Your task to perform on an android device: stop showing notifications on the lock screen Image 0: 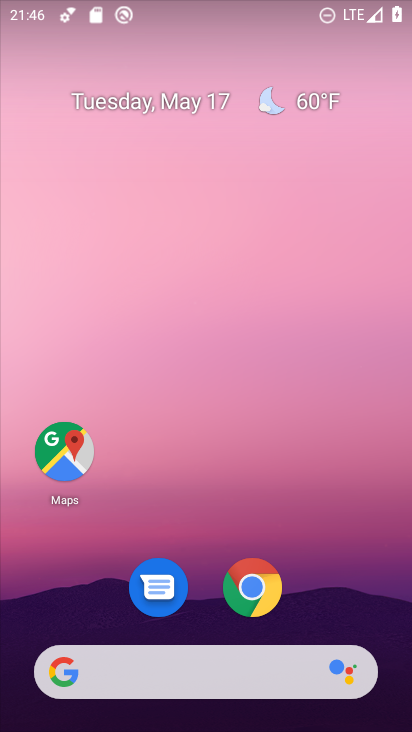
Step 0: drag from (218, 515) to (233, 150)
Your task to perform on an android device: stop showing notifications on the lock screen Image 1: 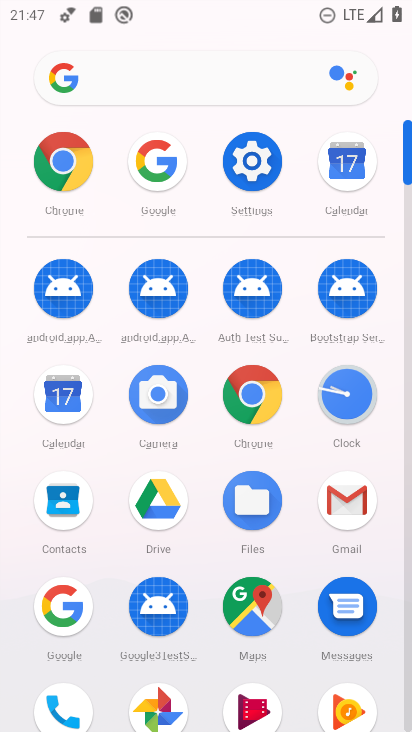
Step 1: click (247, 167)
Your task to perform on an android device: stop showing notifications on the lock screen Image 2: 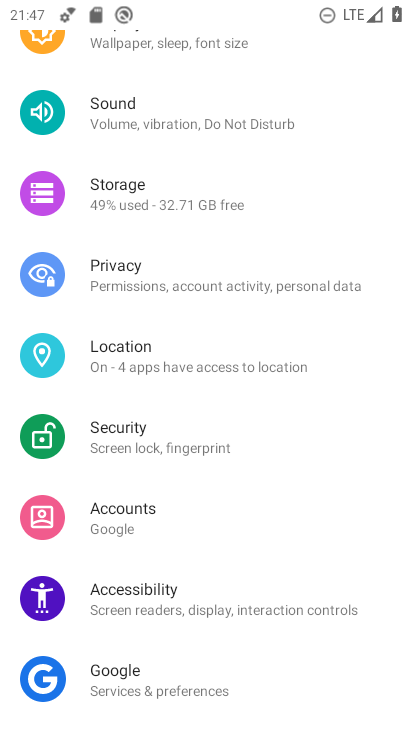
Step 2: drag from (162, 440) to (249, 603)
Your task to perform on an android device: stop showing notifications on the lock screen Image 3: 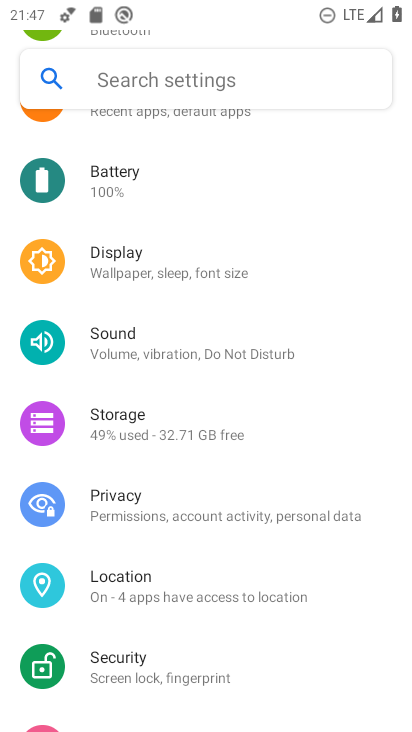
Step 3: drag from (168, 317) to (220, 520)
Your task to perform on an android device: stop showing notifications on the lock screen Image 4: 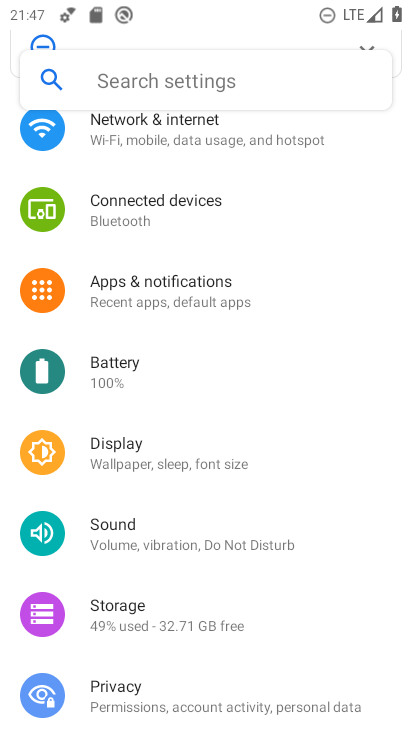
Step 4: click (163, 362)
Your task to perform on an android device: stop showing notifications on the lock screen Image 5: 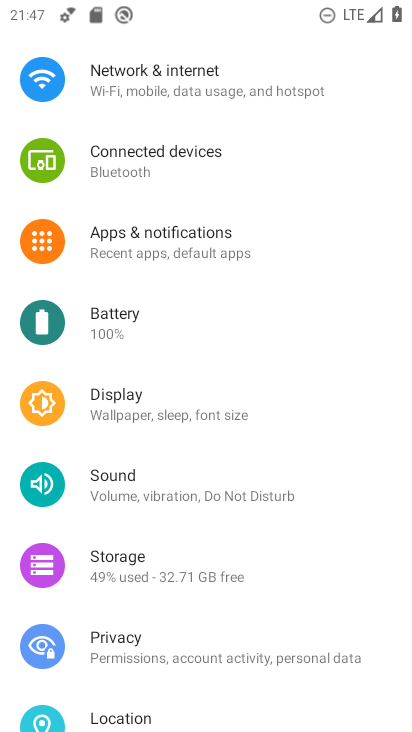
Step 5: drag from (168, 557) to (139, 440)
Your task to perform on an android device: stop showing notifications on the lock screen Image 6: 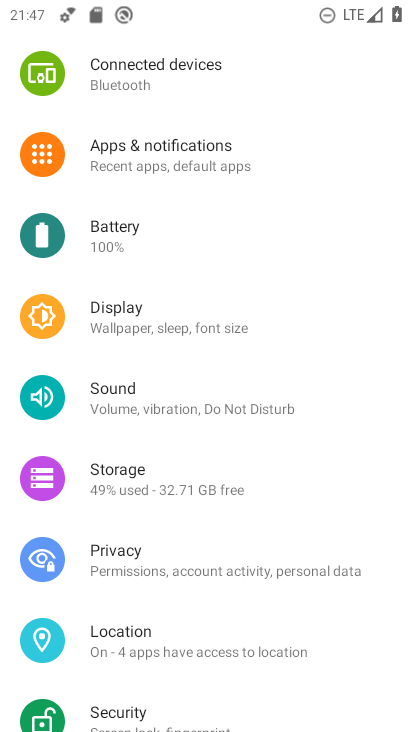
Step 6: click (166, 167)
Your task to perform on an android device: stop showing notifications on the lock screen Image 7: 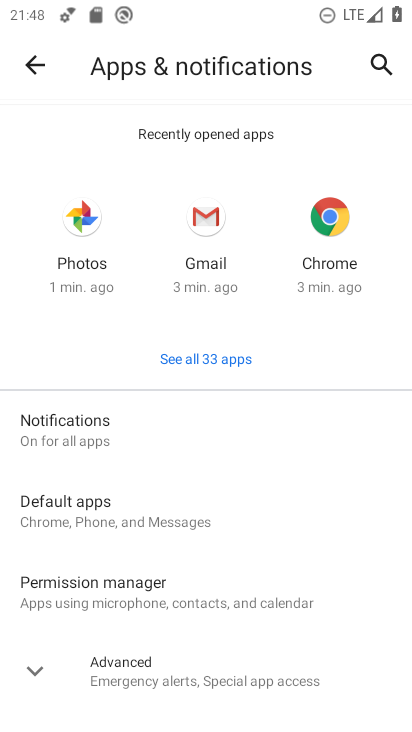
Step 7: click (106, 440)
Your task to perform on an android device: stop showing notifications on the lock screen Image 8: 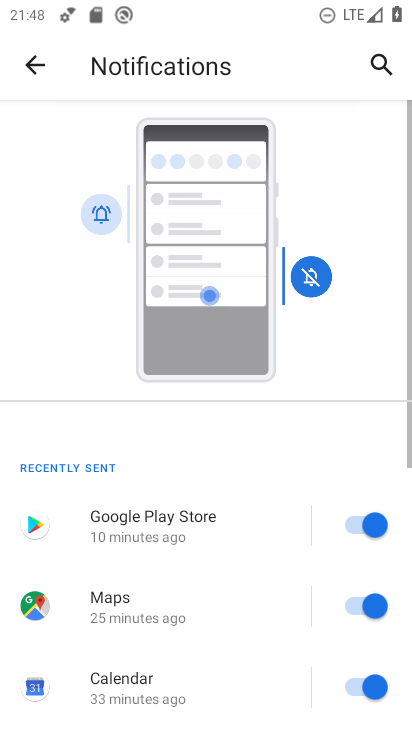
Step 8: drag from (137, 569) to (171, 188)
Your task to perform on an android device: stop showing notifications on the lock screen Image 9: 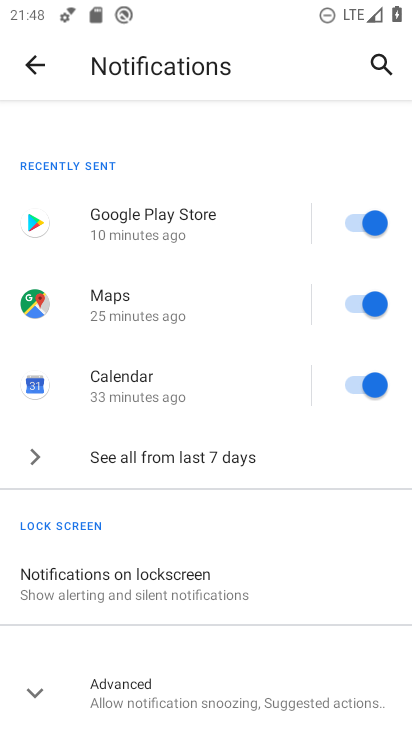
Step 9: click (156, 601)
Your task to perform on an android device: stop showing notifications on the lock screen Image 10: 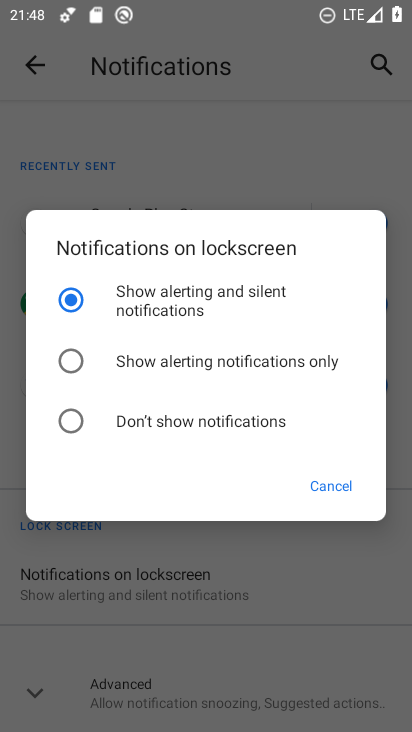
Step 10: click (166, 437)
Your task to perform on an android device: stop showing notifications on the lock screen Image 11: 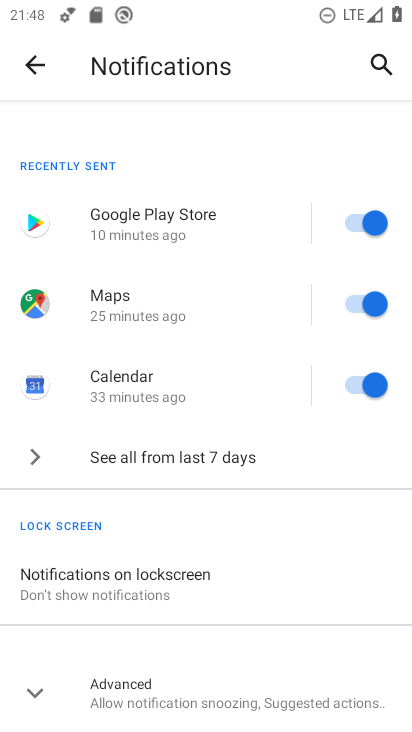
Step 11: task complete